Your task to perform on an android device: Open battery settings Image 0: 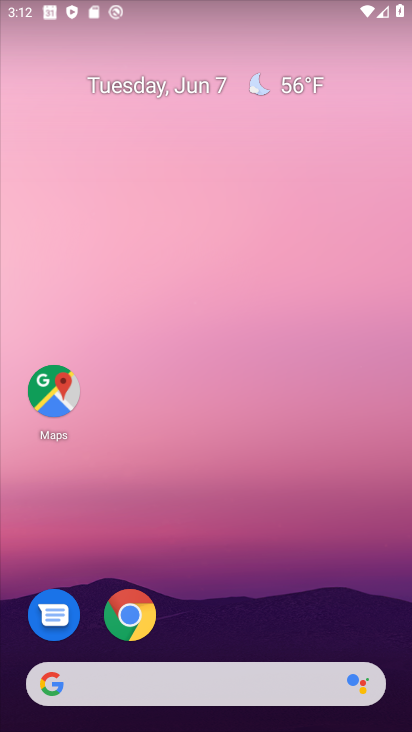
Step 0: drag from (213, 654) to (213, 245)
Your task to perform on an android device: Open battery settings Image 1: 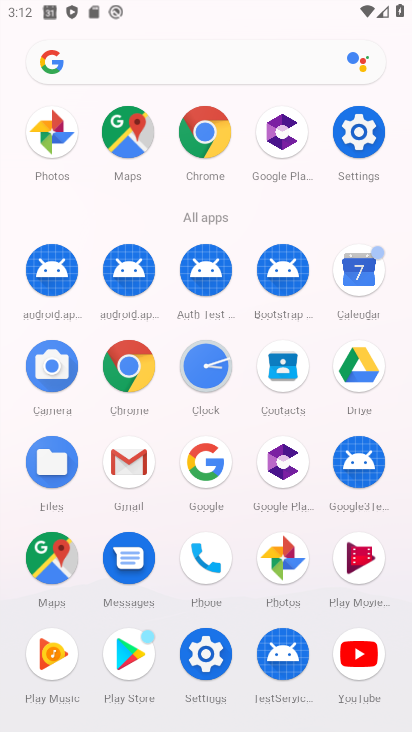
Step 1: click (353, 137)
Your task to perform on an android device: Open battery settings Image 2: 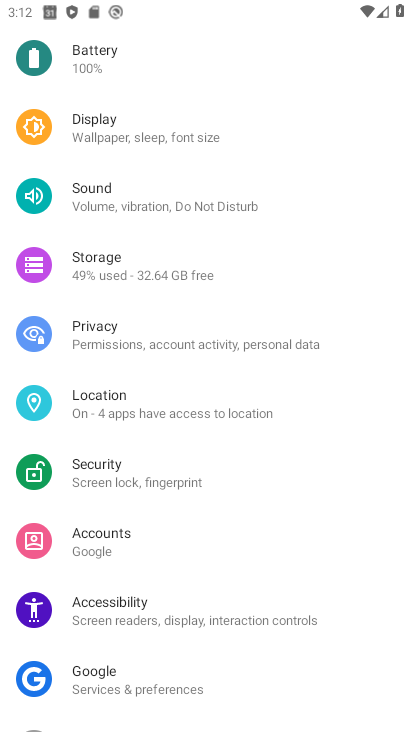
Step 2: click (104, 52)
Your task to perform on an android device: Open battery settings Image 3: 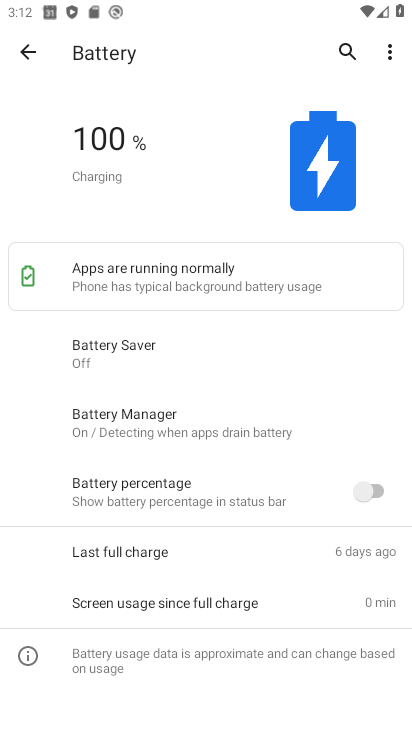
Step 3: task complete